Your task to perform on an android device: Open maps Image 0: 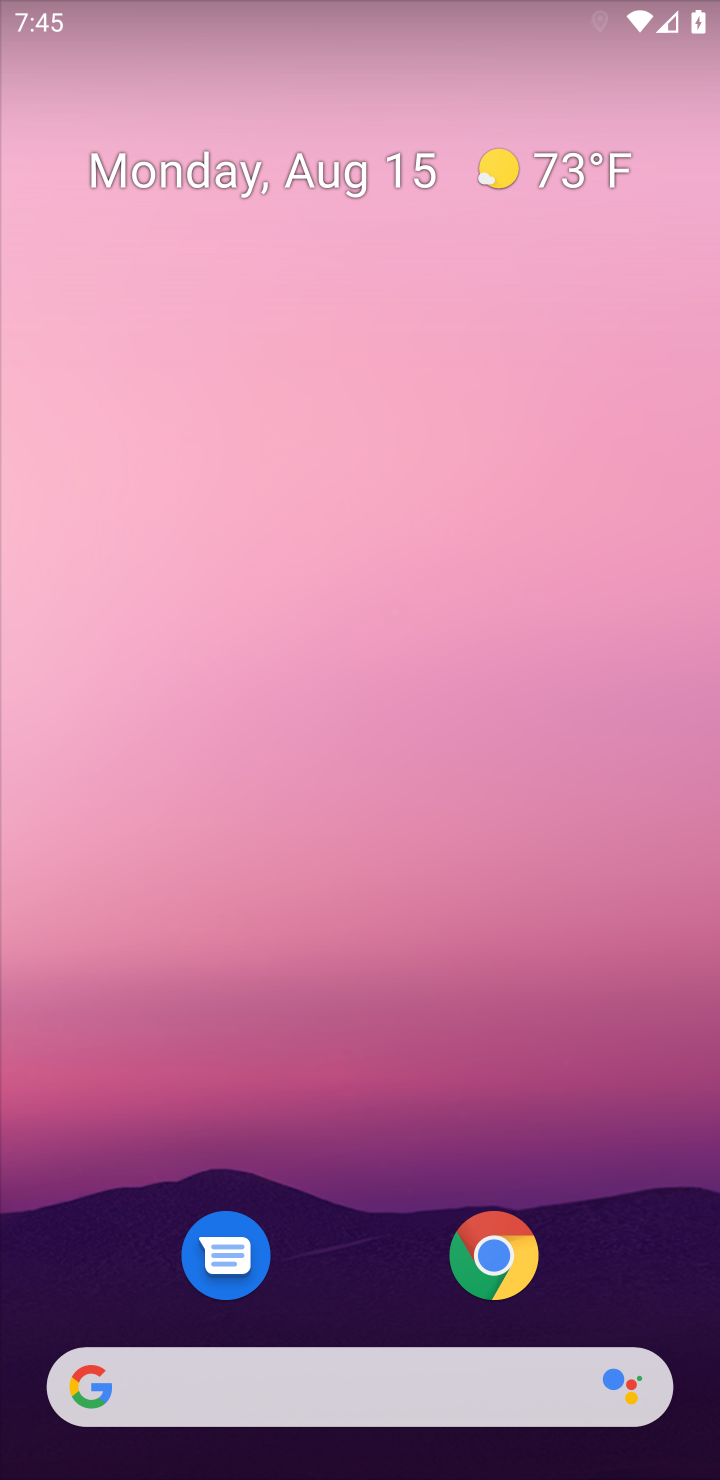
Step 0: drag from (371, 1099) to (415, 353)
Your task to perform on an android device: Open maps Image 1: 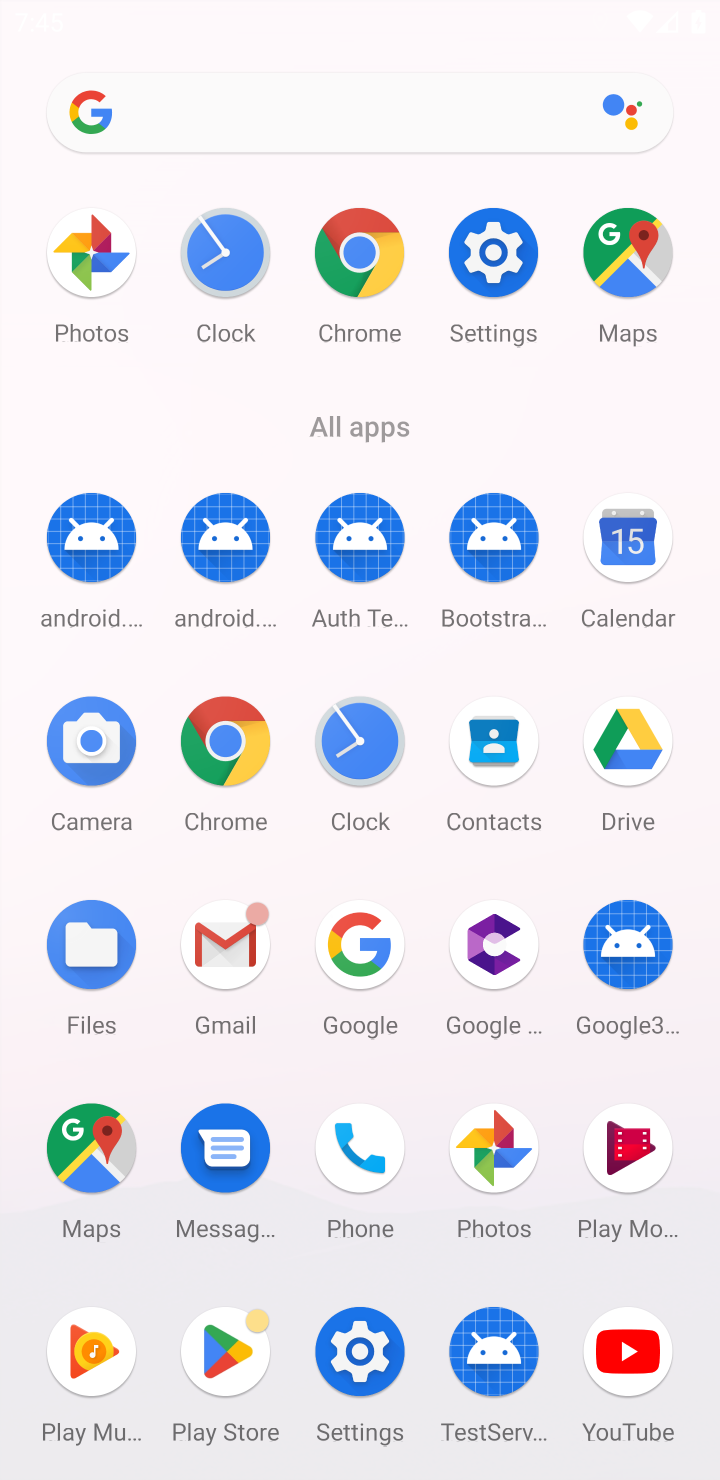
Step 1: click (89, 1144)
Your task to perform on an android device: Open maps Image 2: 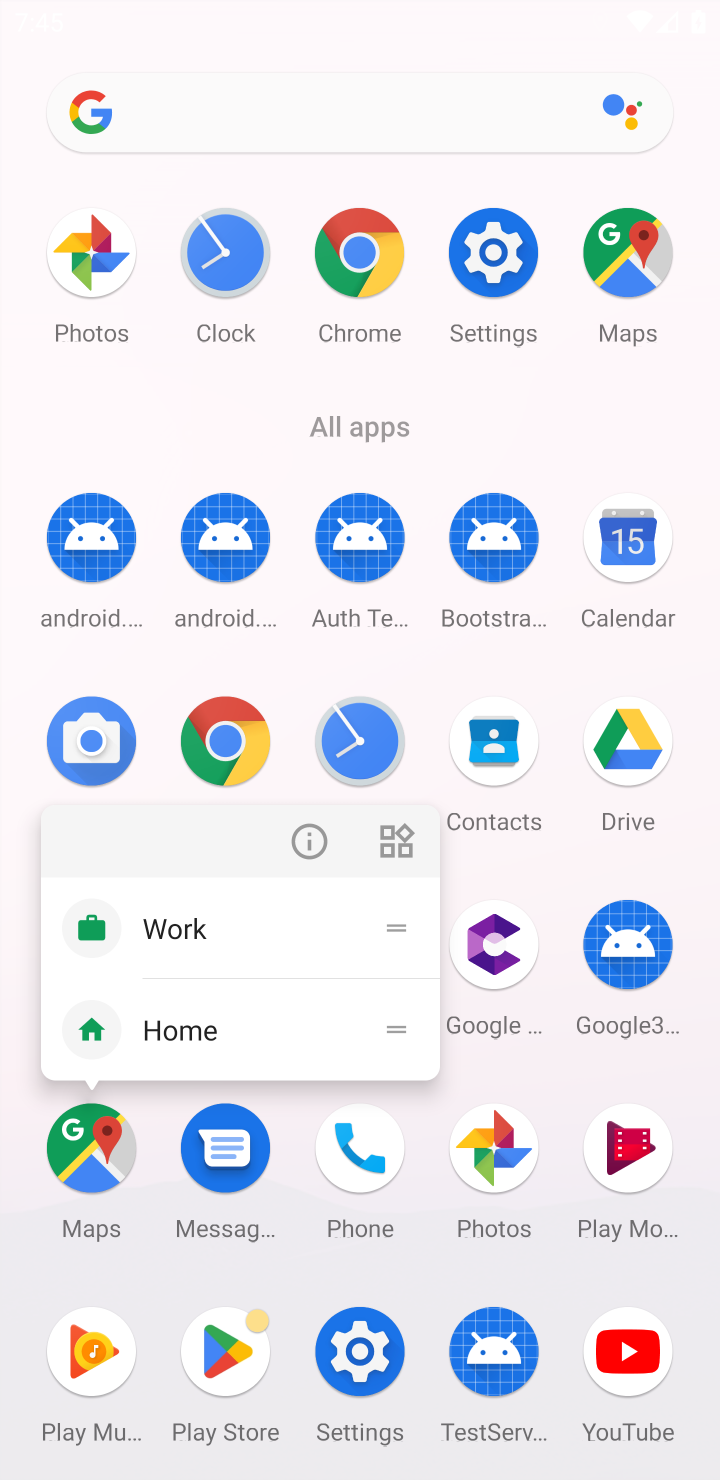
Step 2: click (79, 1131)
Your task to perform on an android device: Open maps Image 3: 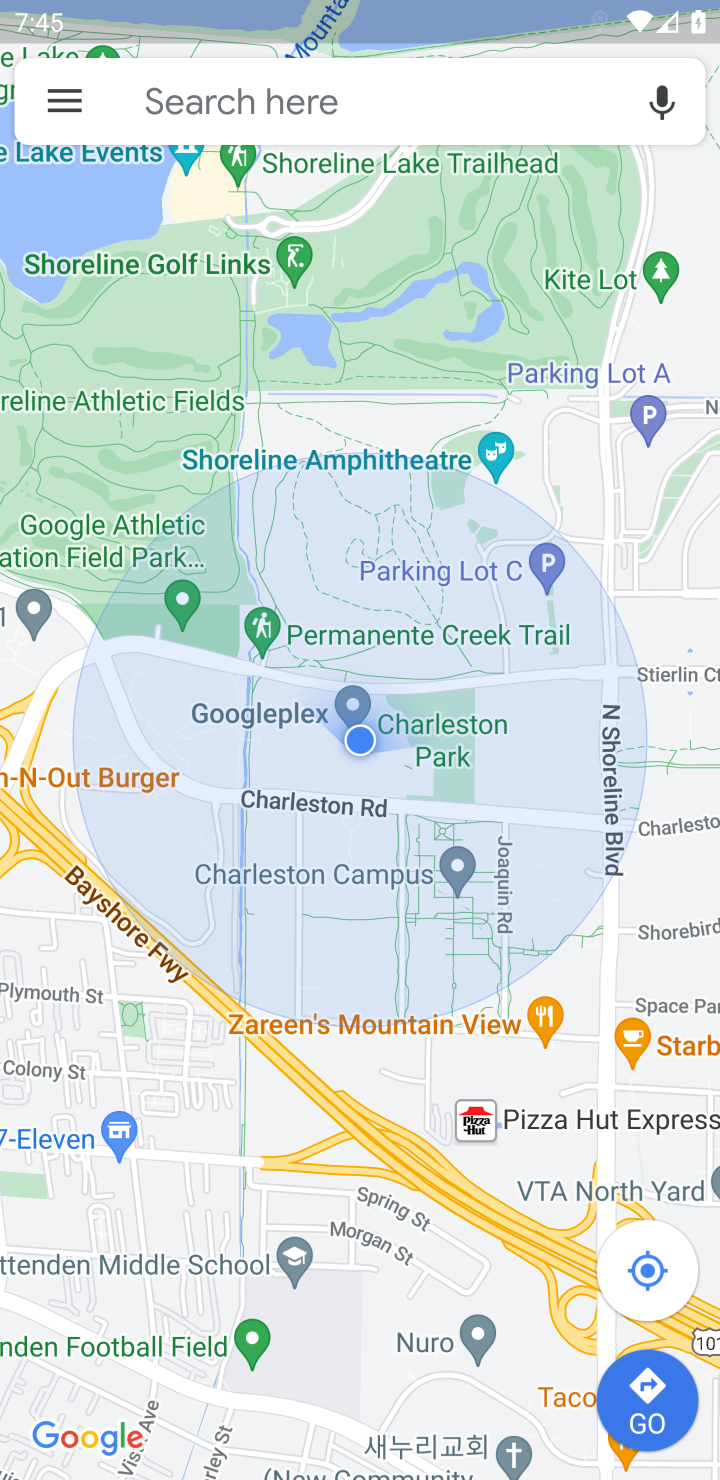
Step 3: task complete